Your task to perform on an android device: Search for vegetarian restaurants on Maps Image 0: 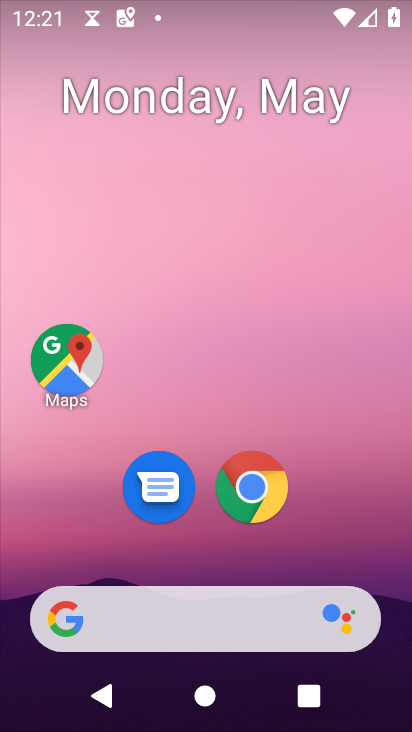
Step 0: click (83, 355)
Your task to perform on an android device: Search for vegetarian restaurants on Maps Image 1: 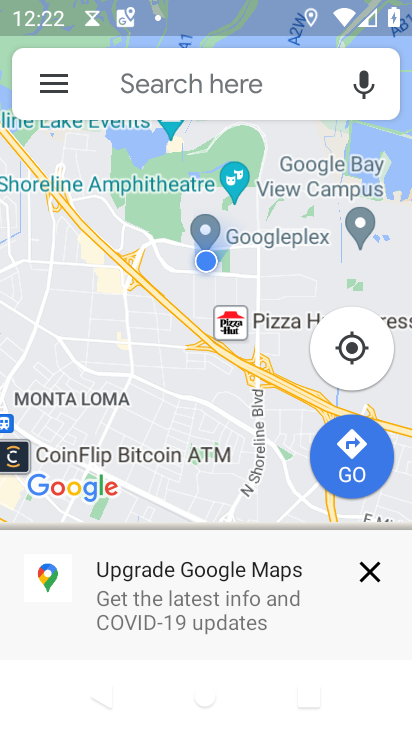
Step 1: click (157, 91)
Your task to perform on an android device: Search for vegetarian restaurants on Maps Image 2: 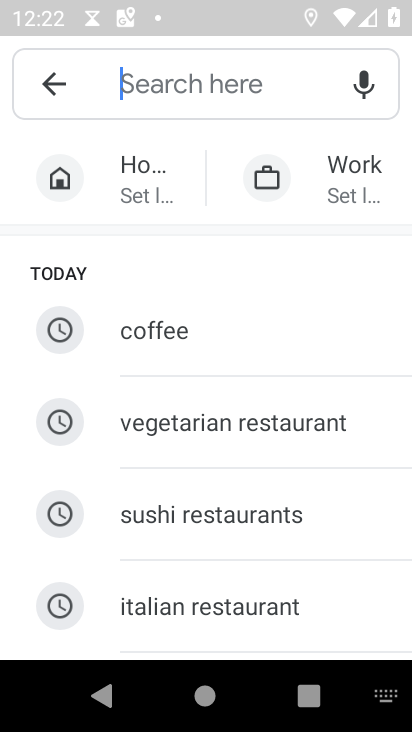
Step 2: type "vegetarian restaurant"
Your task to perform on an android device: Search for vegetarian restaurants on Maps Image 3: 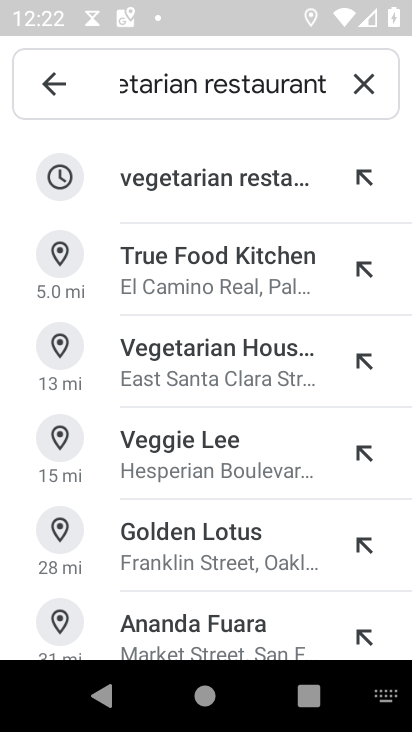
Step 3: click (128, 178)
Your task to perform on an android device: Search for vegetarian restaurants on Maps Image 4: 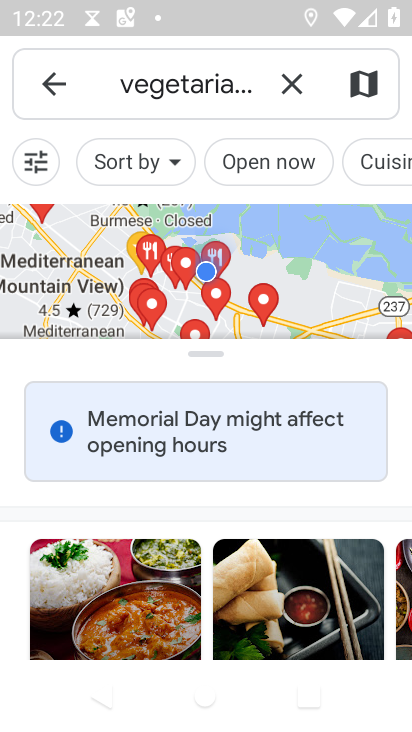
Step 4: task complete